Your task to perform on an android device: clear all cookies in the chrome app Image 0: 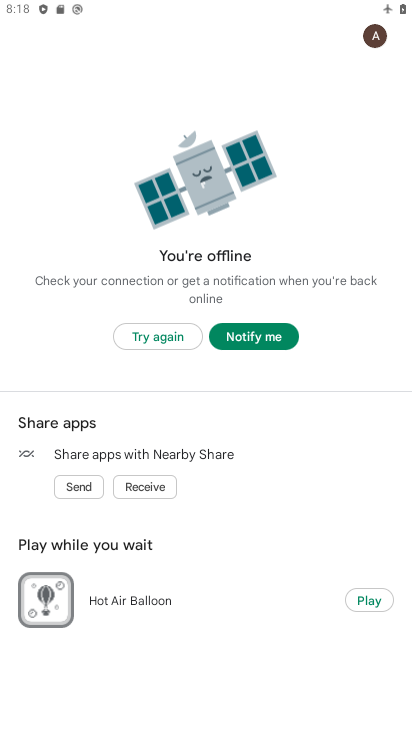
Step 0: press home button
Your task to perform on an android device: clear all cookies in the chrome app Image 1: 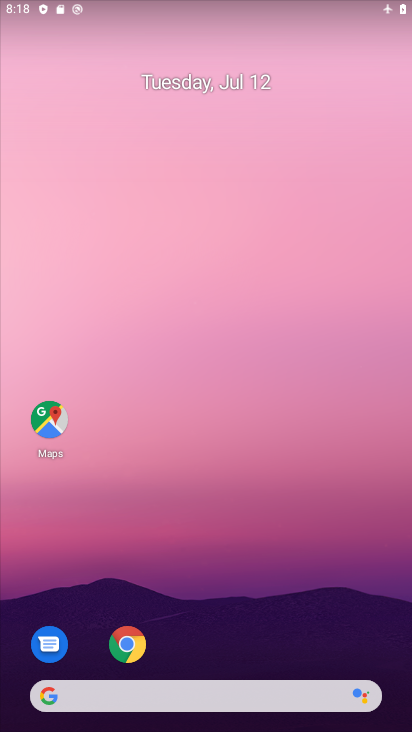
Step 1: click (135, 651)
Your task to perform on an android device: clear all cookies in the chrome app Image 2: 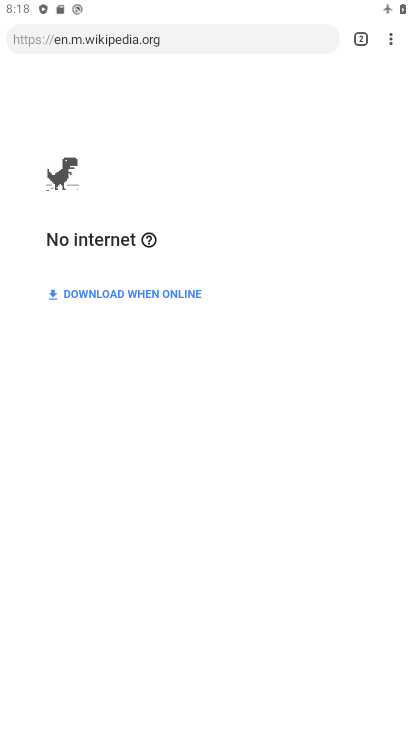
Step 2: click (386, 45)
Your task to perform on an android device: clear all cookies in the chrome app Image 3: 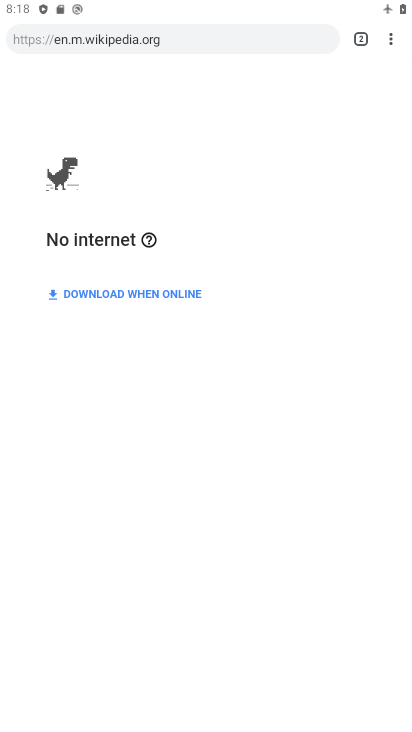
Step 3: click (396, 37)
Your task to perform on an android device: clear all cookies in the chrome app Image 4: 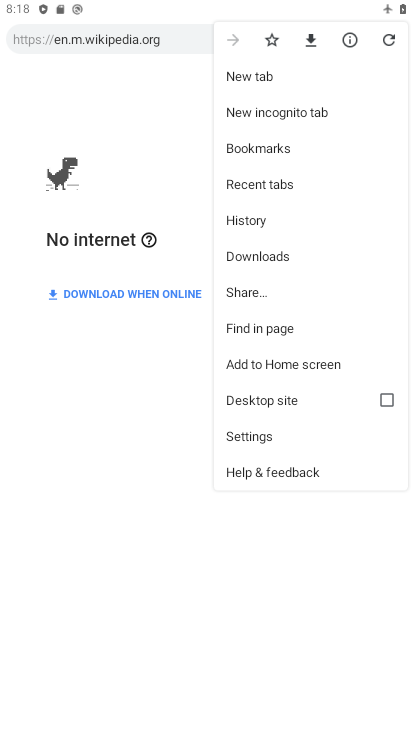
Step 4: click (268, 219)
Your task to perform on an android device: clear all cookies in the chrome app Image 5: 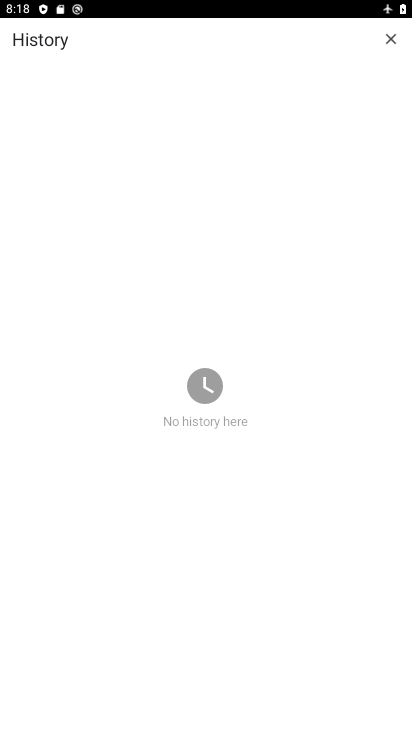
Step 5: task complete